Your task to perform on an android device: turn on showing notifications on the lock screen Image 0: 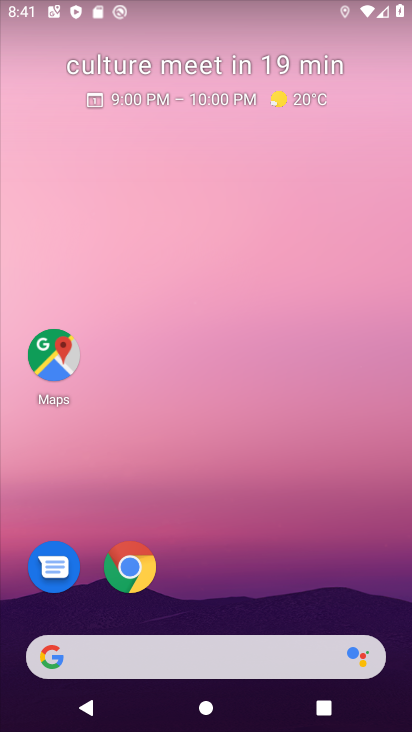
Step 0: drag from (148, 618) to (130, 123)
Your task to perform on an android device: turn on showing notifications on the lock screen Image 1: 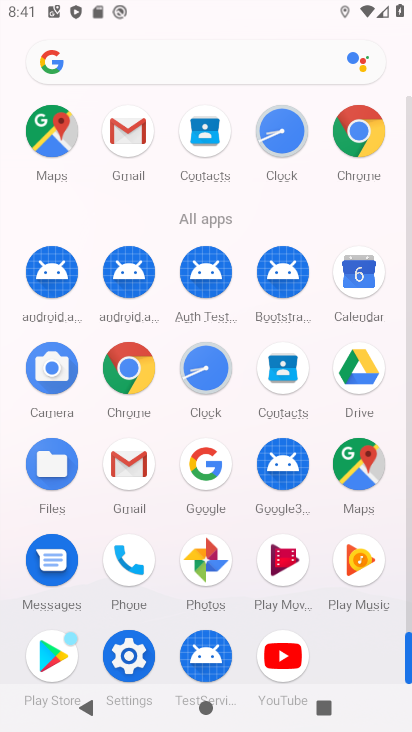
Step 1: click (121, 669)
Your task to perform on an android device: turn on showing notifications on the lock screen Image 2: 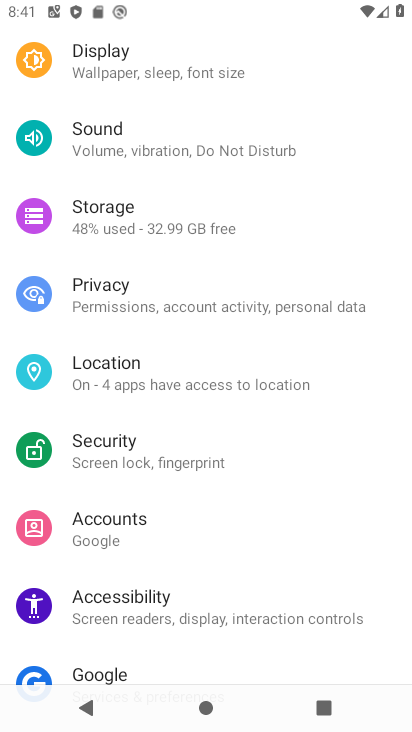
Step 2: drag from (178, 136) to (66, 571)
Your task to perform on an android device: turn on showing notifications on the lock screen Image 3: 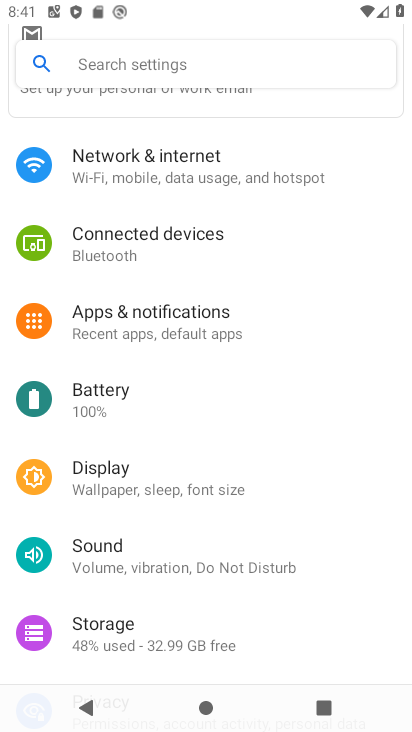
Step 3: click (208, 330)
Your task to perform on an android device: turn on showing notifications on the lock screen Image 4: 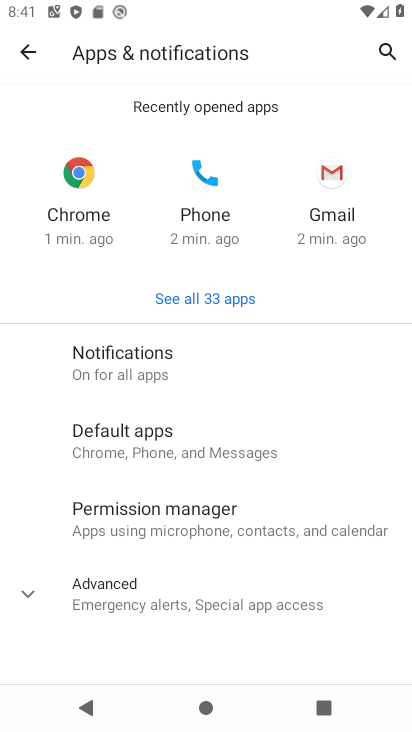
Step 4: click (154, 346)
Your task to perform on an android device: turn on showing notifications on the lock screen Image 5: 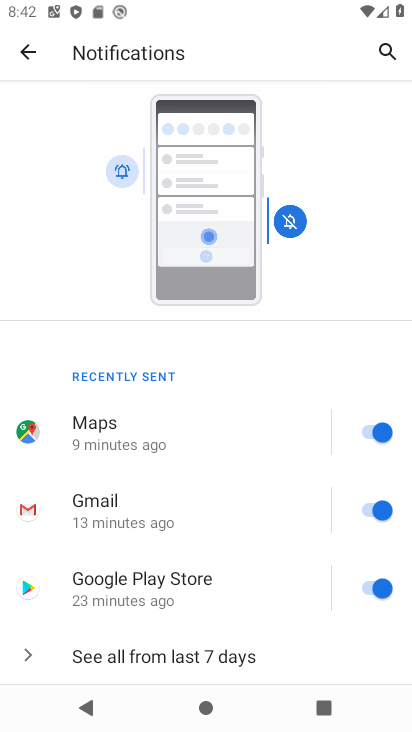
Step 5: drag from (226, 653) to (160, 173)
Your task to perform on an android device: turn on showing notifications on the lock screen Image 6: 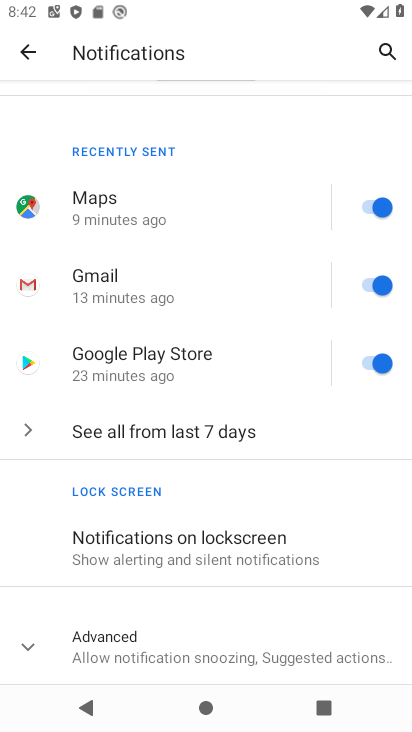
Step 6: click (202, 560)
Your task to perform on an android device: turn on showing notifications on the lock screen Image 7: 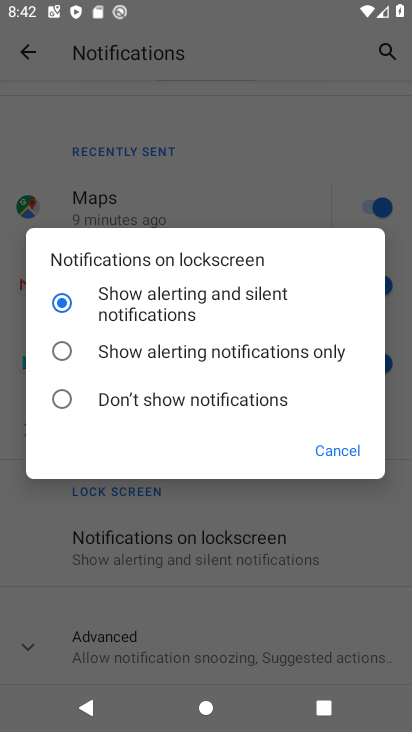
Step 7: click (202, 560)
Your task to perform on an android device: turn on showing notifications on the lock screen Image 8: 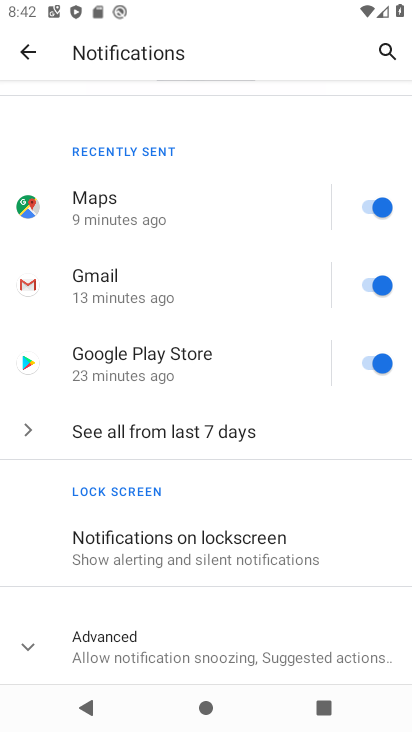
Step 8: task complete